Your task to perform on an android device: Open Chrome and go to the settings page Image 0: 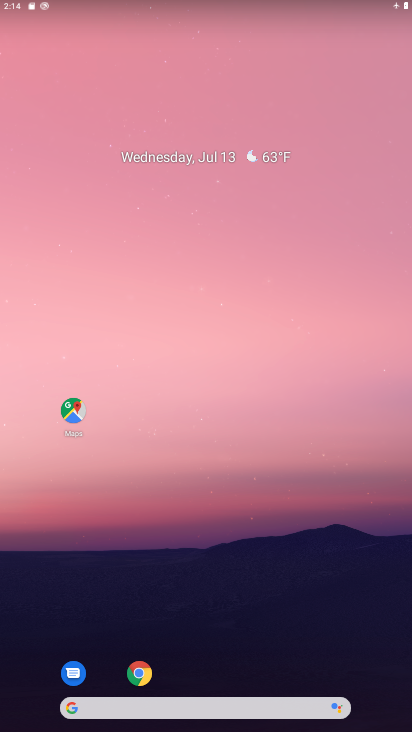
Step 0: drag from (278, 631) to (272, 213)
Your task to perform on an android device: Open Chrome and go to the settings page Image 1: 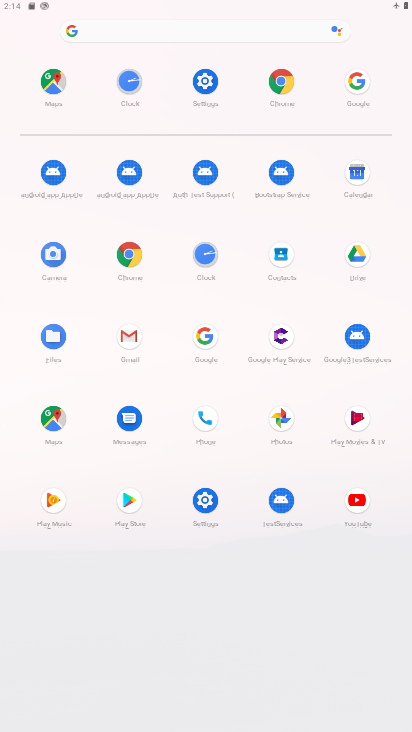
Step 1: click (287, 76)
Your task to perform on an android device: Open Chrome and go to the settings page Image 2: 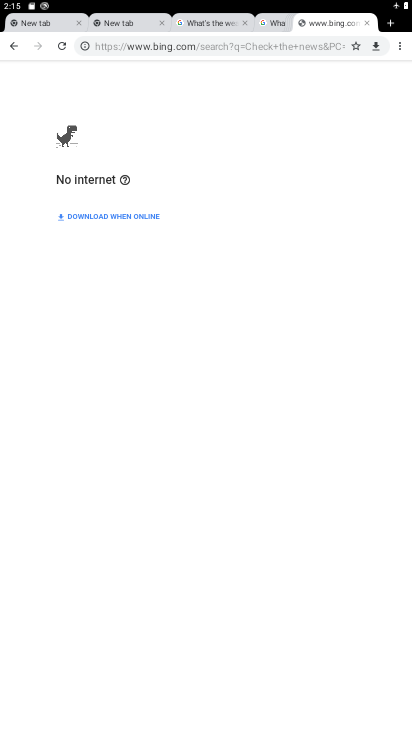
Step 2: click (400, 49)
Your task to perform on an android device: Open Chrome and go to the settings page Image 3: 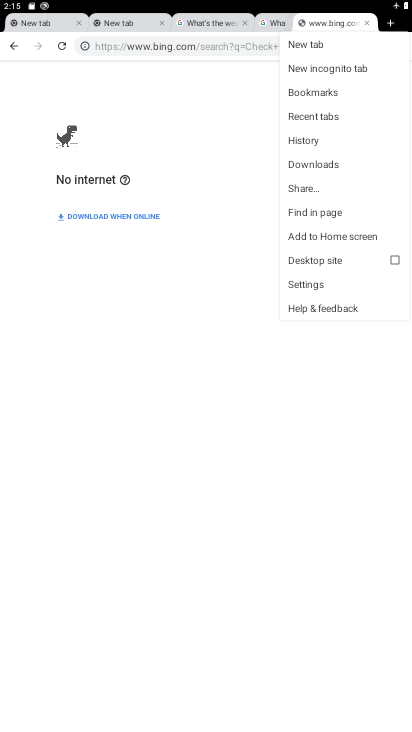
Step 3: click (320, 291)
Your task to perform on an android device: Open Chrome and go to the settings page Image 4: 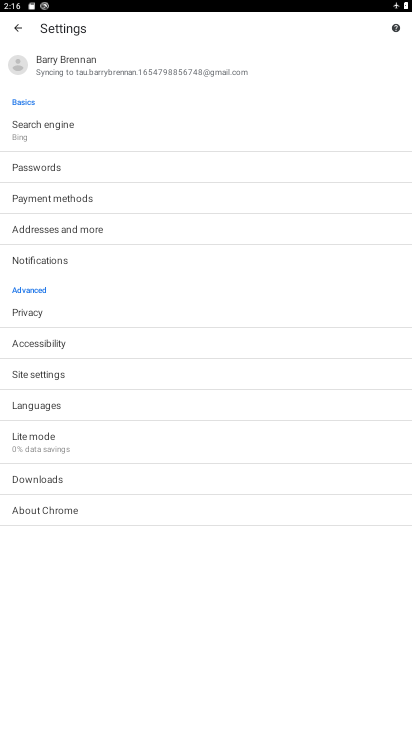
Step 4: task complete